Your task to perform on an android device: Go to ESPN.com Image 0: 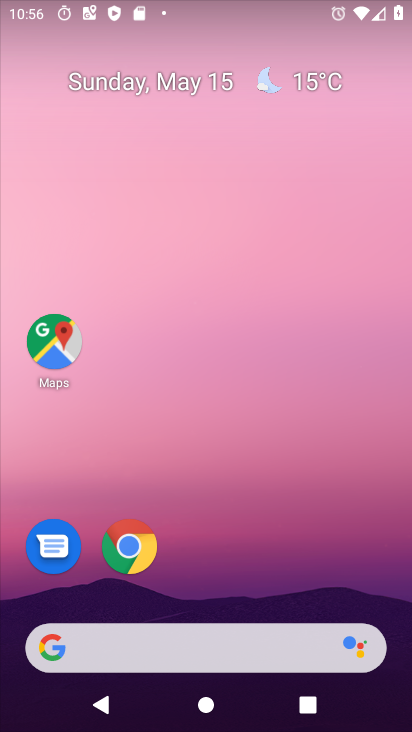
Step 0: drag from (254, 670) to (190, 208)
Your task to perform on an android device: Go to ESPN.com Image 1: 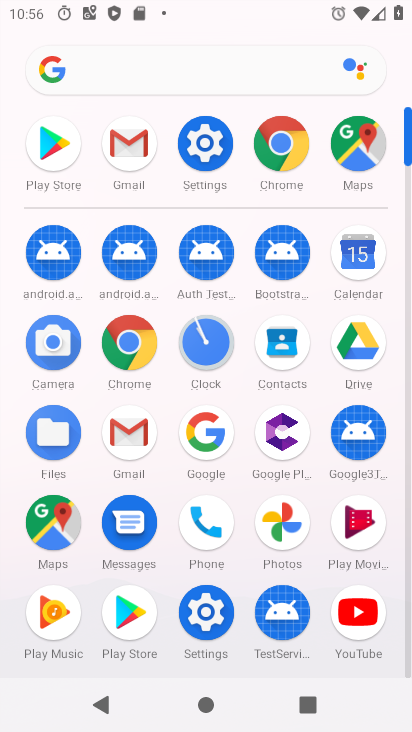
Step 1: click (285, 158)
Your task to perform on an android device: Go to ESPN.com Image 2: 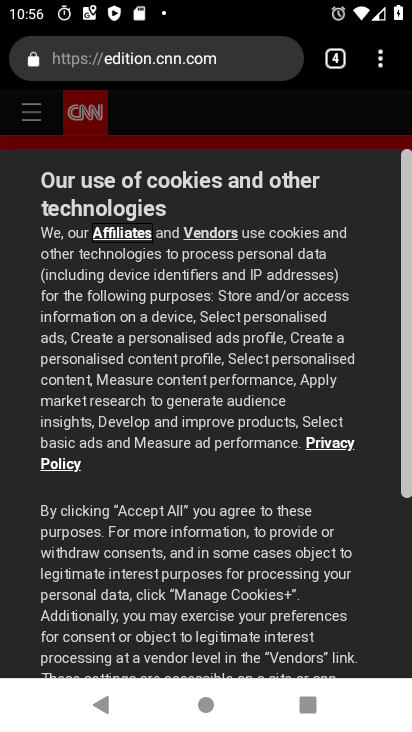
Step 2: drag from (383, 62) to (168, 110)
Your task to perform on an android device: Go to ESPN.com Image 3: 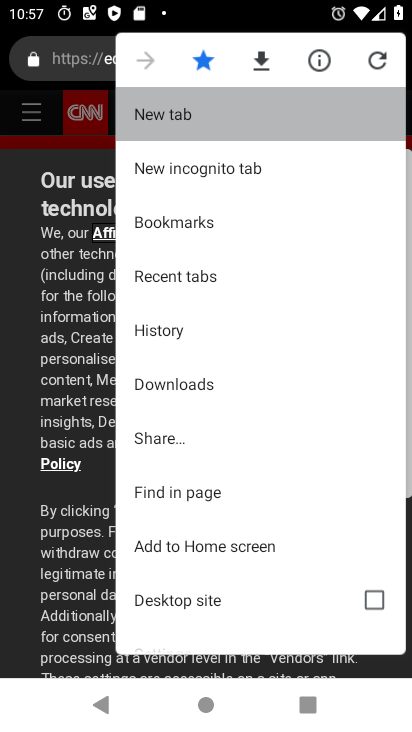
Step 3: click (168, 110)
Your task to perform on an android device: Go to ESPN.com Image 4: 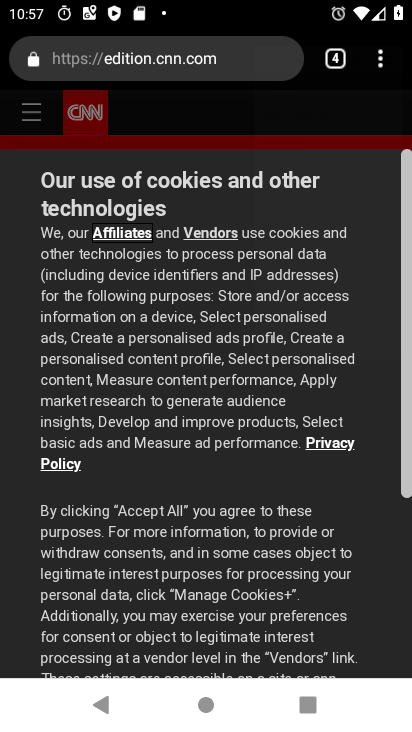
Step 4: click (168, 110)
Your task to perform on an android device: Go to ESPN.com Image 5: 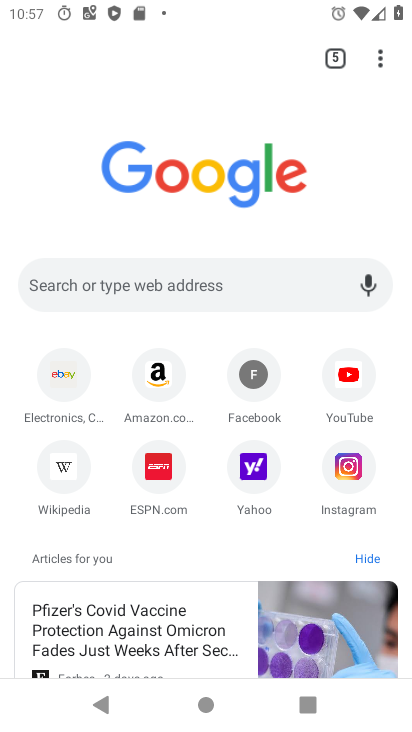
Step 5: click (141, 467)
Your task to perform on an android device: Go to ESPN.com Image 6: 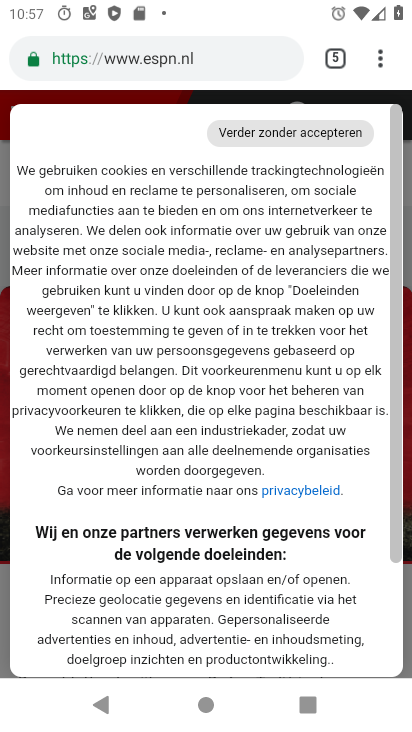
Step 6: task complete